Your task to perform on an android device: What is the recent news? Image 0: 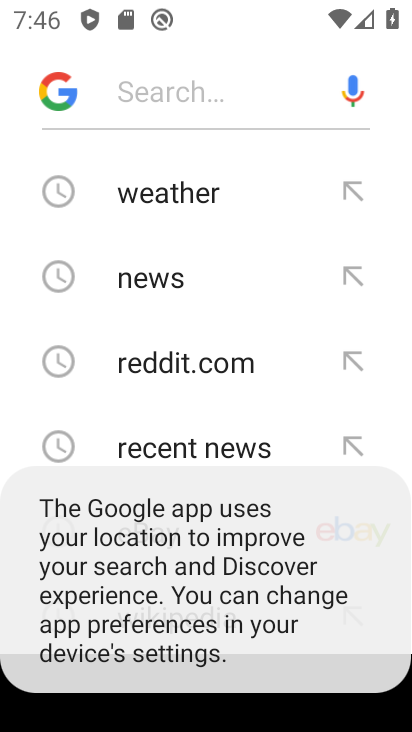
Step 0: click (151, 448)
Your task to perform on an android device: What is the recent news? Image 1: 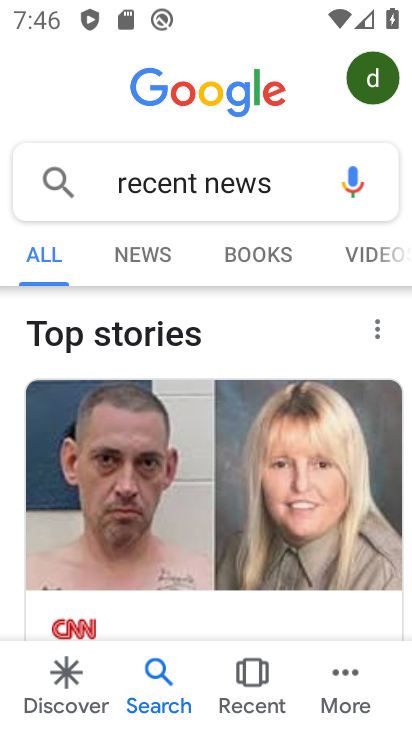
Step 1: task complete